Your task to perform on an android device: snooze an email in the gmail app Image 0: 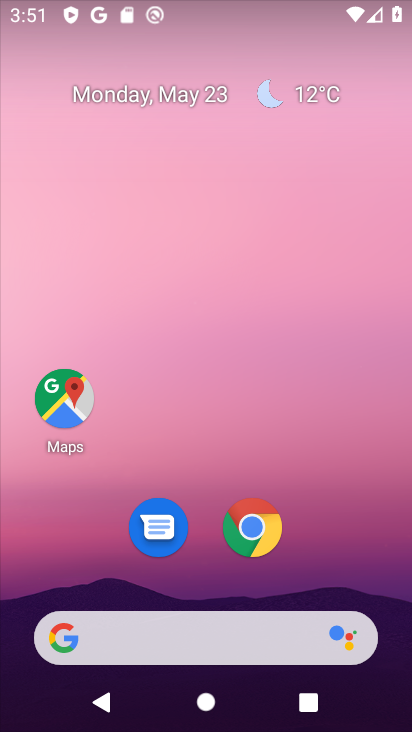
Step 0: press home button
Your task to perform on an android device: snooze an email in the gmail app Image 1: 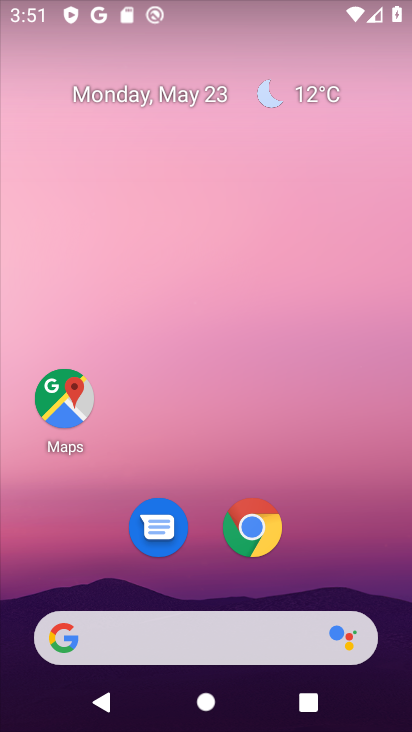
Step 1: press home button
Your task to perform on an android device: snooze an email in the gmail app Image 2: 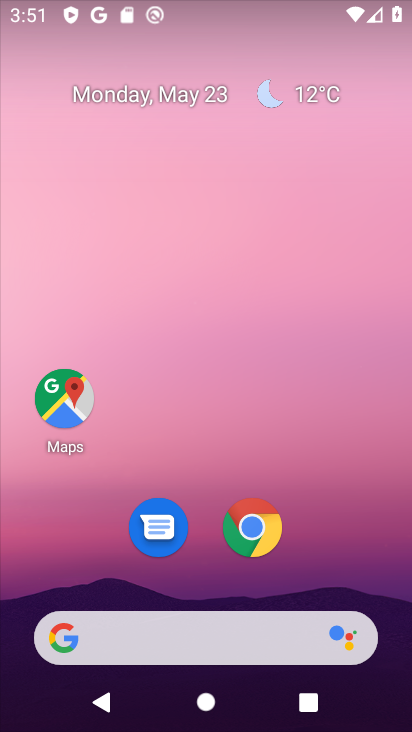
Step 2: drag from (210, 587) to (227, 29)
Your task to perform on an android device: snooze an email in the gmail app Image 3: 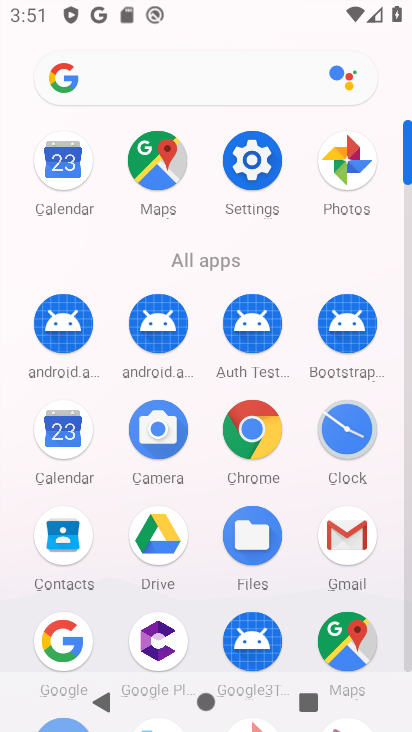
Step 3: click (345, 522)
Your task to perform on an android device: snooze an email in the gmail app Image 4: 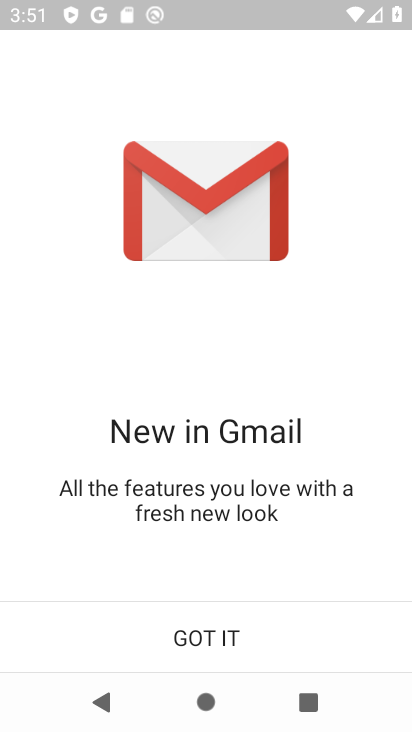
Step 4: click (215, 649)
Your task to perform on an android device: snooze an email in the gmail app Image 5: 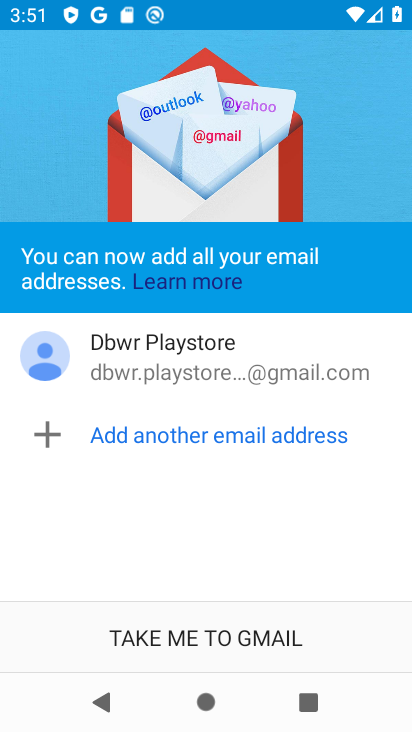
Step 5: click (201, 646)
Your task to perform on an android device: snooze an email in the gmail app Image 6: 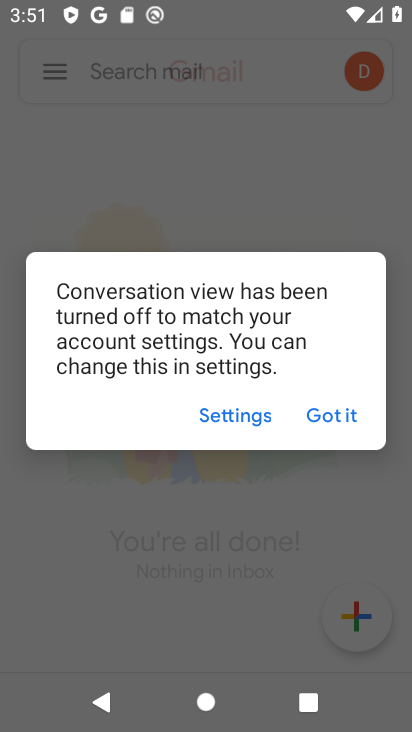
Step 6: click (341, 417)
Your task to perform on an android device: snooze an email in the gmail app Image 7: 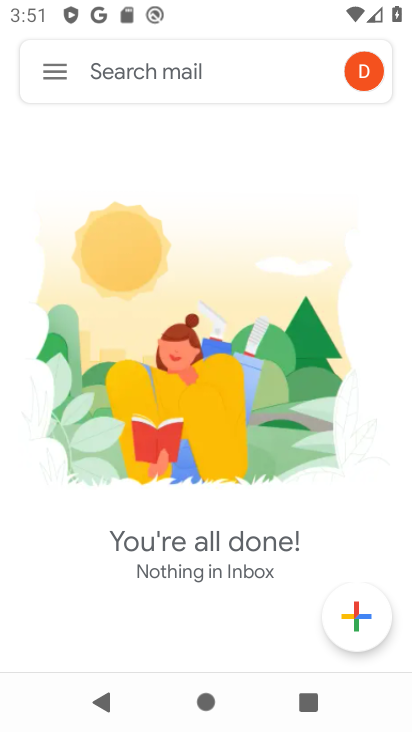
Step 7: task complete